Your task to perform on an android device: check out phone information Image 0: 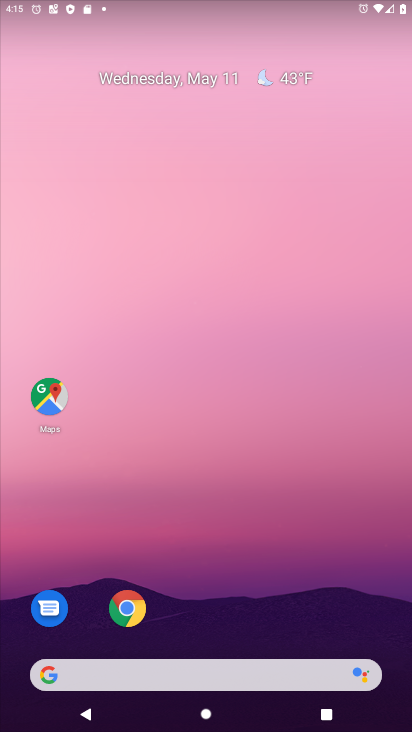
Step 0: drag from (224, 726) to (225, 21)
Your task to perform on an android device: check out phone information Image 1: 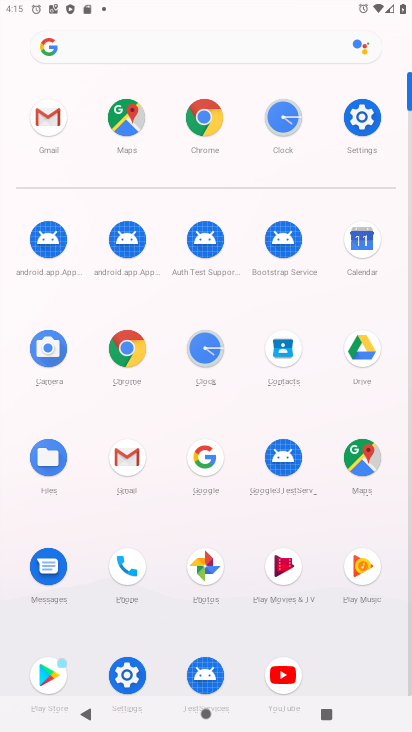
Step 1: click (361, 112)
Your task to perform on an android device: check out phone information Image 2: 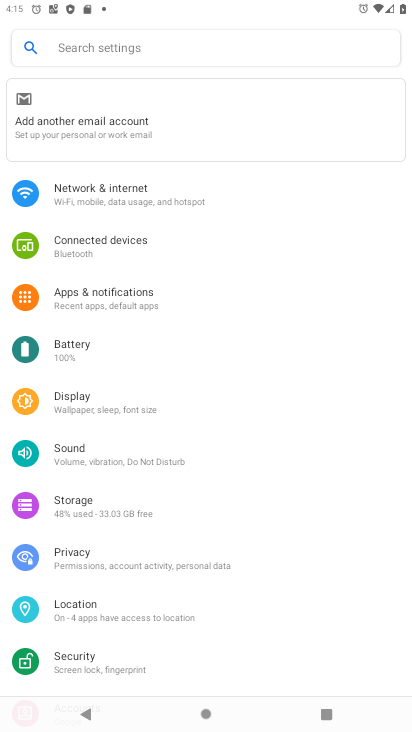
Step 2: drag from (114, 650) to (116, 278)
Your task to perform on an android device: check out phone information Image 3: 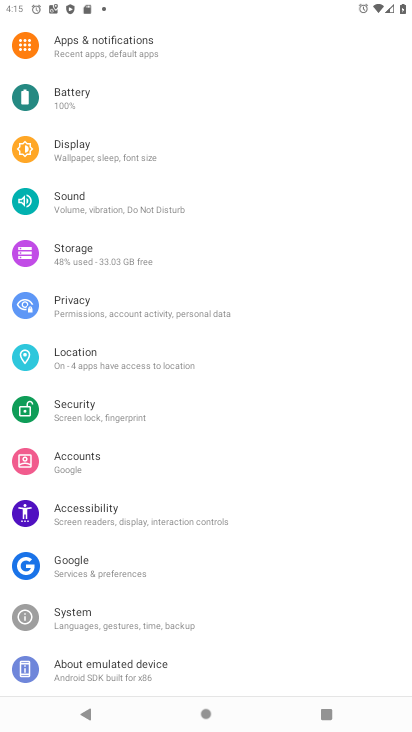
Step 3: drag from (146, 153) to (145, 566)
Your task to perform on an android device: check out phone information Image 4: 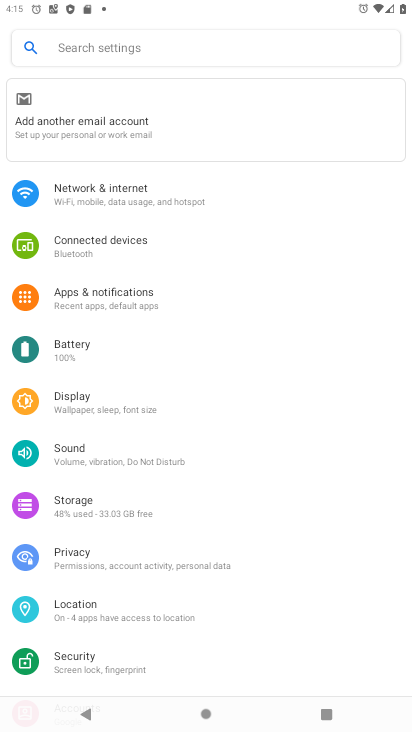
Step 4: drag from (110, 661) to (117, 210)
Your task to perform on an android device: check out phone information Image 5: 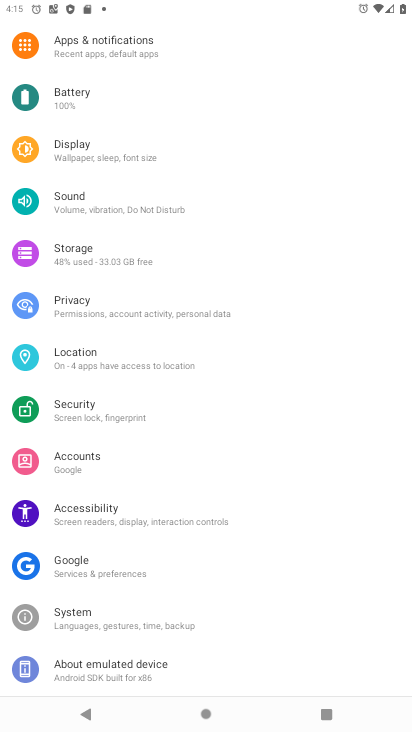
Step 5: click (128, 662)
Your task to perform on an android device: check out phone information Image 6: 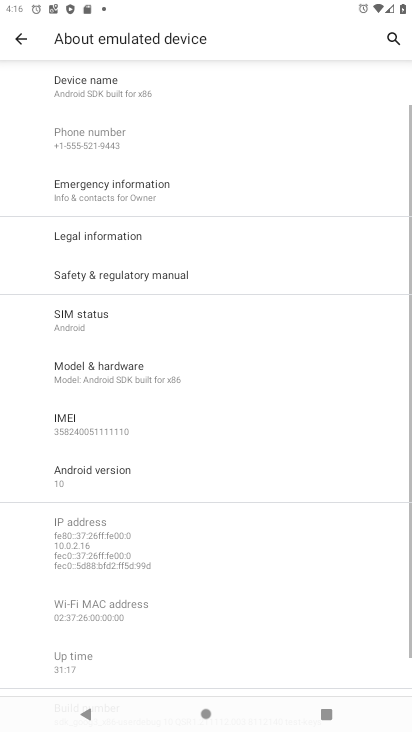
Step 6: task complete